Your task to perform on an android device: turn smart compose on in the gmail app Image 0: 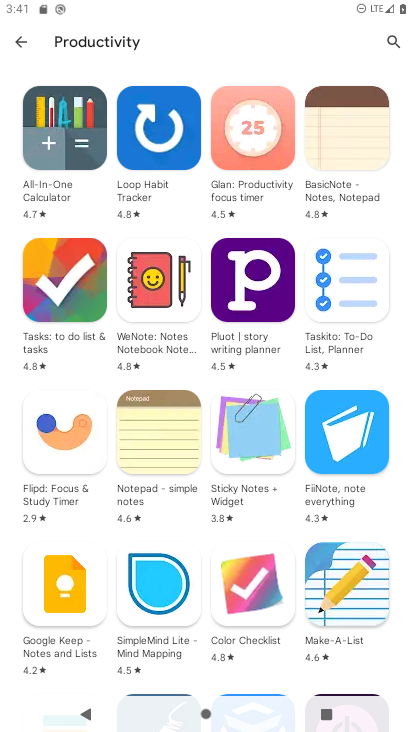
Step 0: press home button
Your task to perform on an android device: turn smart compose on in the gmail app Image 1: 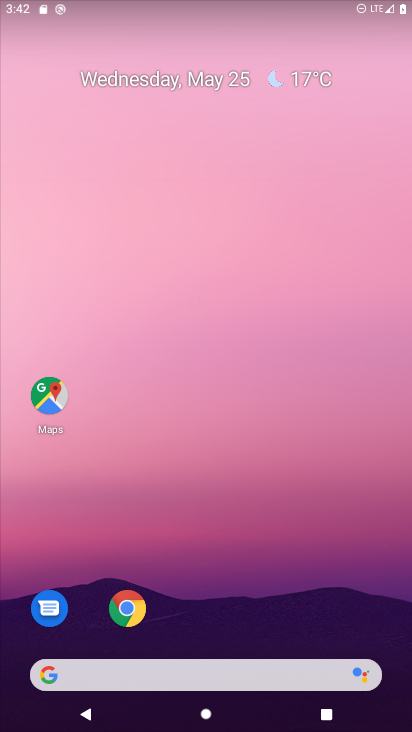
Step 1: drag from (381, 647) to (342, 187)
Your task to perform on an android device: turn smart compose on in the gmail app Image 2: 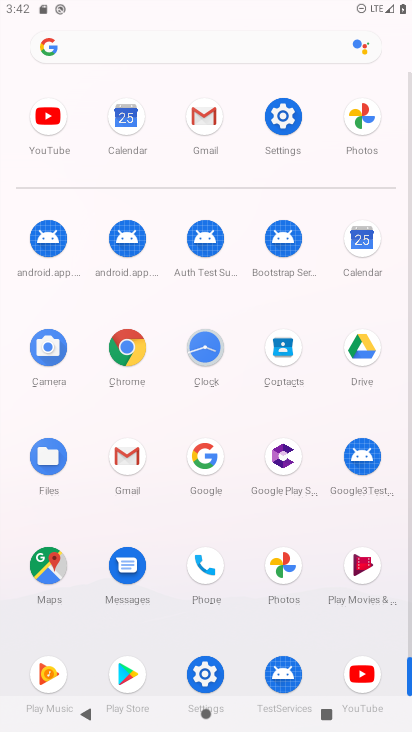
Step 2: click (124, 452)
Your task to perform on an android device: turn smart compose on in the gmail app Image 3: 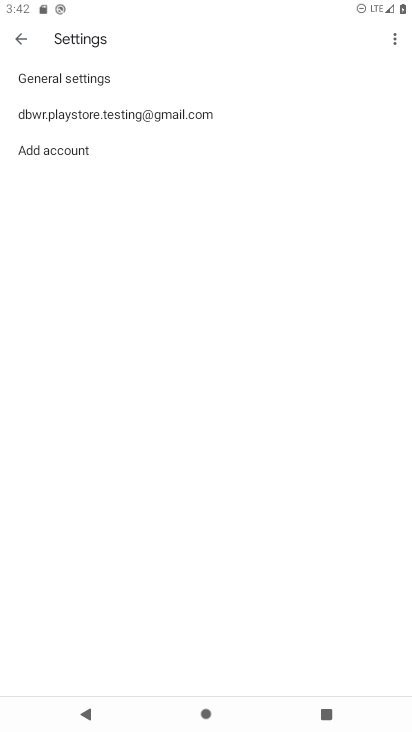
Step 3: click (96, 111)
Your task to perform on an android device: turn smart compose on in the gmail app Image 4: 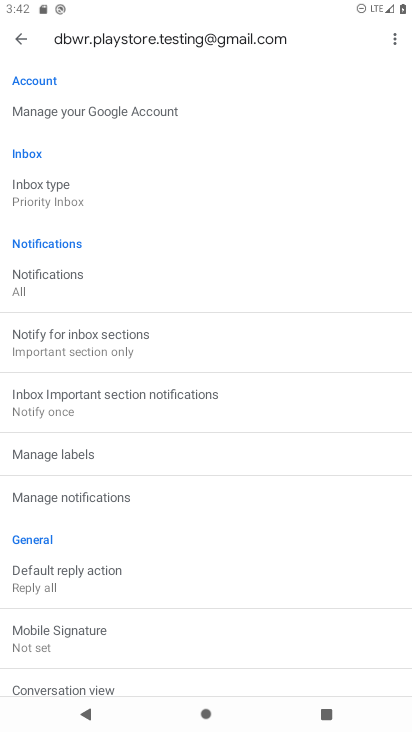
Step 4: task complete